Your task to perform on an android device: Add beats solo 3 to the cart on amazon Image 0: 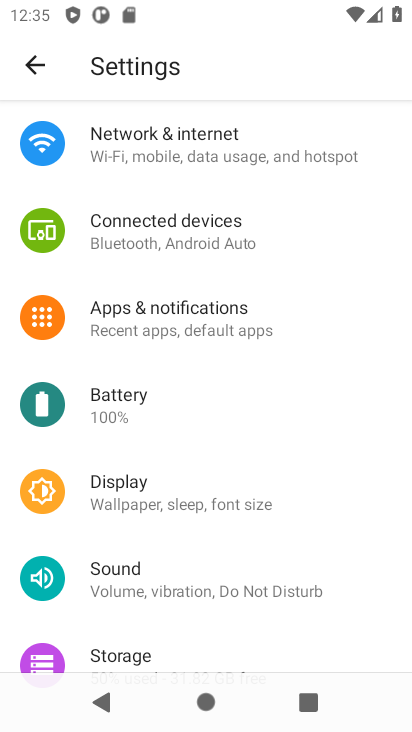
Step 0: press home button
Your task to perform on an android device: Add beats solo 3 to the cart on amazon Image 1: 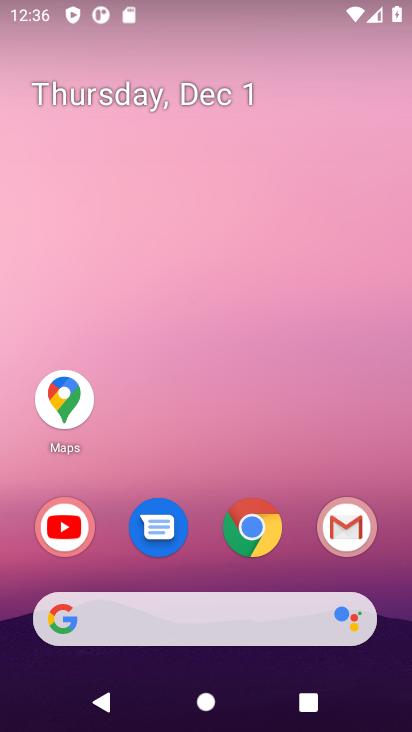
Step 1: click (247, 548)
Your task to perform on an android device: Add beats solo 3 to the cart on amazon Image 2: 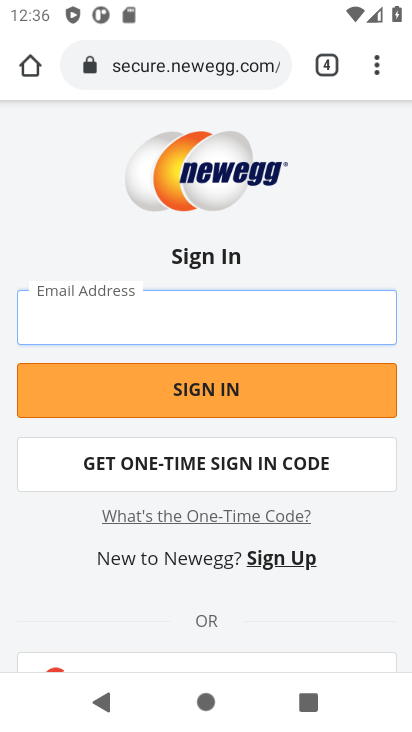
Step 2: click (216, 65)
Your task to perform on an android device: Add beats solo 3 to the cart on amazon Image 3: 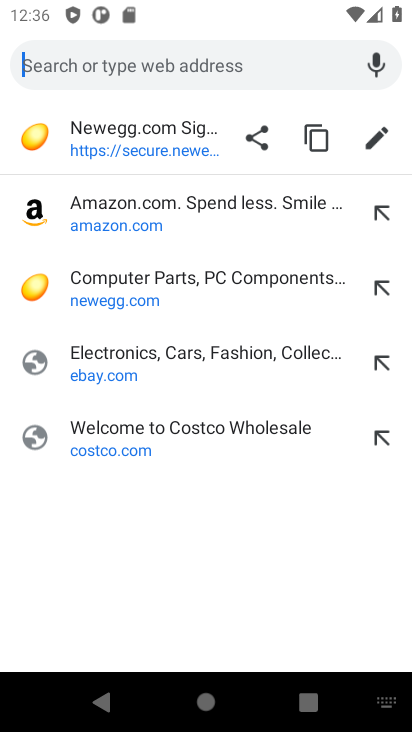
Step 3: click (91, 214)
Your task to perform on an android device: Add beats solo 3 to the cart on amazon Image 4: 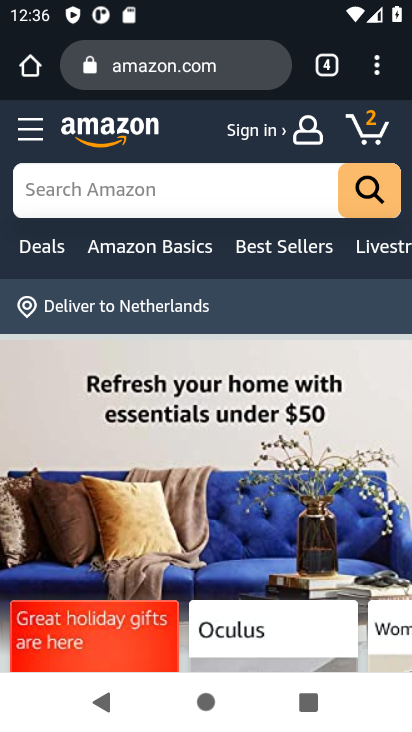
Step 4: click (72, 197)
Your task to perform on an android device: Add beats solo 3 to the cart on amazon Image 5: 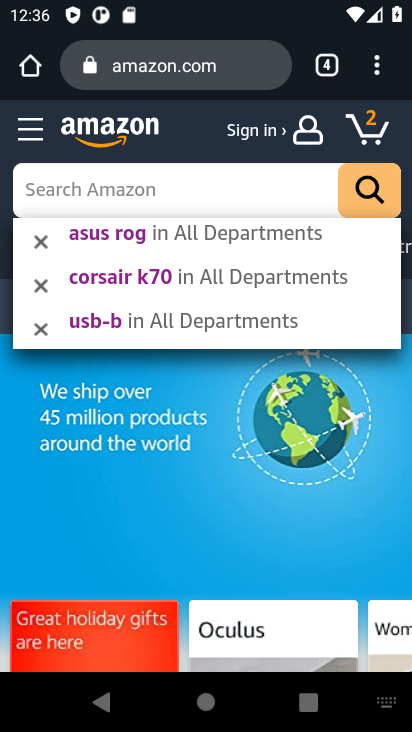
Step 5: type "beats solo 3 "
Your task to perform on an android device: Add beats solo 3 to the cart on amazon Image 6: 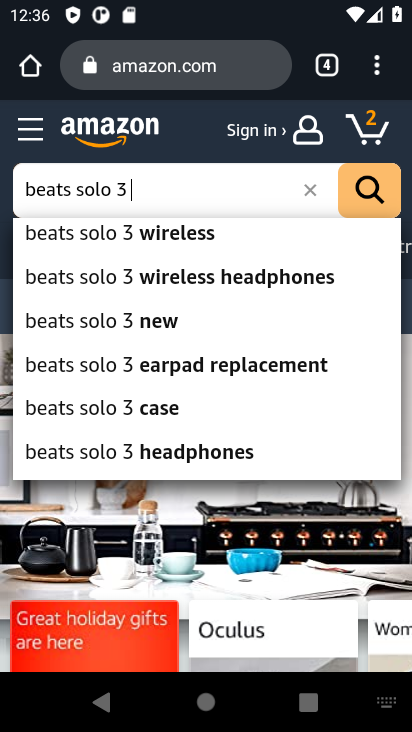
Step 6: click (371, 192)
Your task to perform on an android device: Add beats solo 3 to the cart on amazon Image 7: 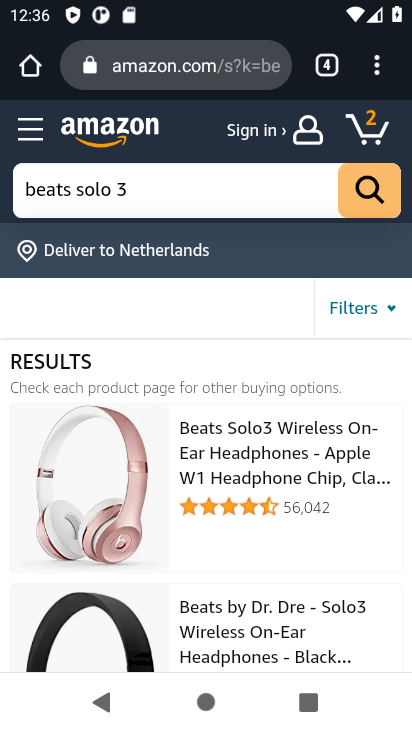
Step 7: drag from (252, 484) to (240, 248)
Your task to perform on an android device: Add beats solo 3 to the cart on amazon Image 8: 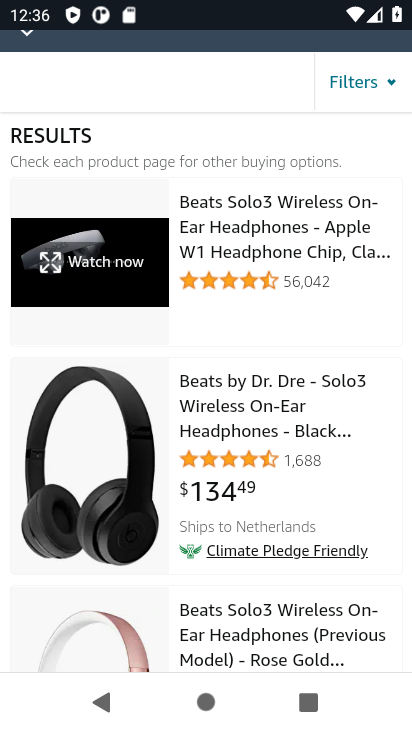
Step 8: drag from (199, 425) to (197, 200)
Your task to perform on an android device: Add beats solo 3 to the cart on amazon Image 9: 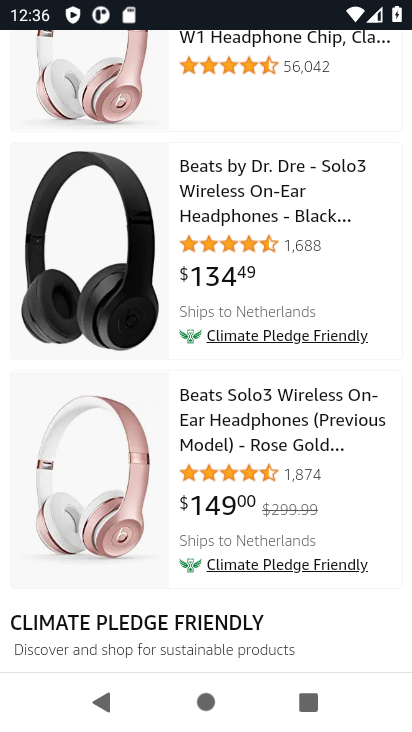
Step 9: drag from (188, 437) to (192, 290)
Your task to perform on an android device: Add beats solo 3 to the cart on amazon Image 10: 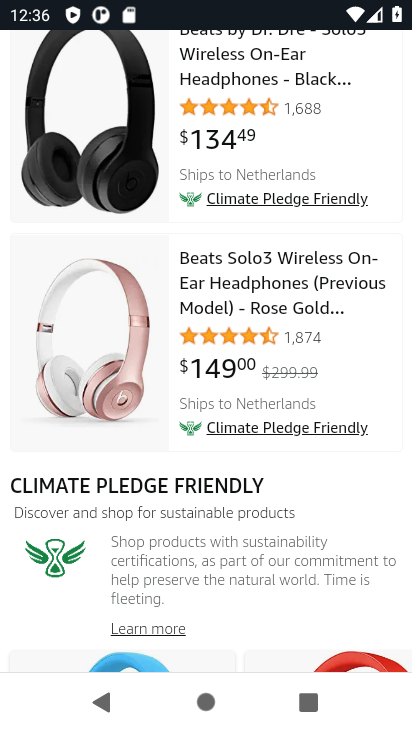
Step 10: click (221, 285)
Your task to perform on an android device: Add beats solo 3 to the cart on amazon Image 11: 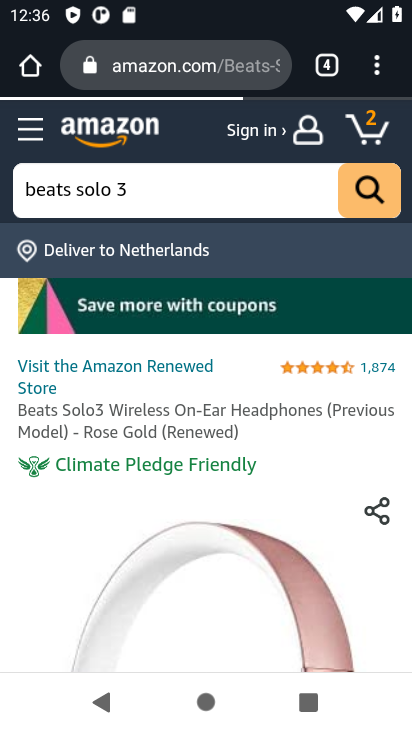
Step 11: drag from (181, 517) to (155, 106)
Your task to perform on an android device: Add beats solo 3 to the cart on amazon Image 12: 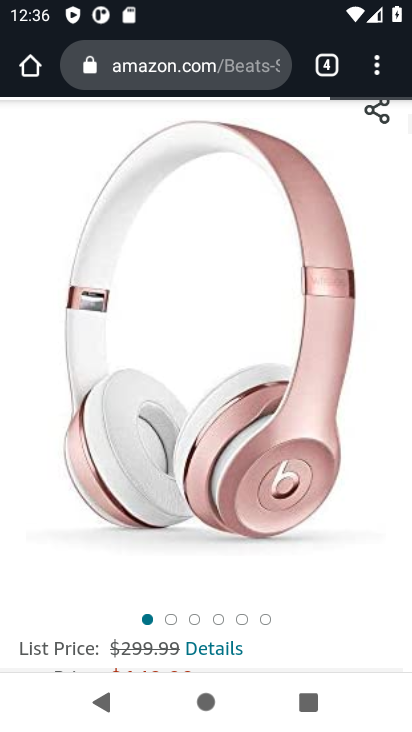
Step 12: drag from (148, 451) to (143, 172)
Your task to perform on an android device: Add beats solo 3 to the cart on amazon Image 13: 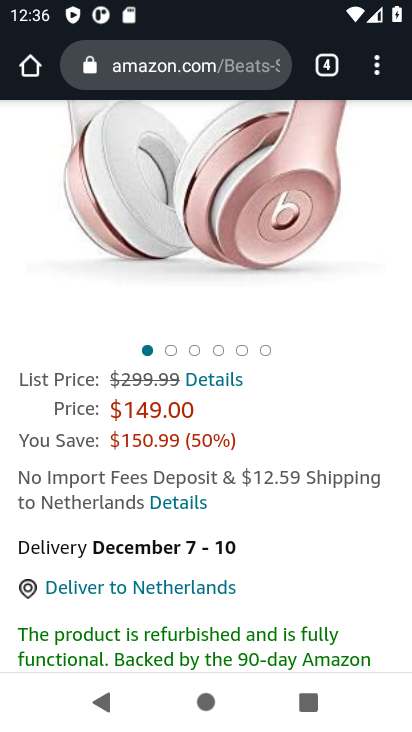
Step 13: drag from (138, 471) to (105, 175)
Your task to perform on an android device: Add beats solo 3 to the cart on amazon Image 14: 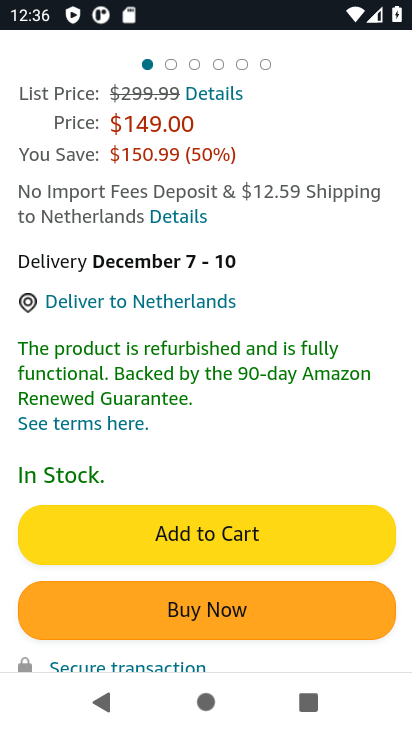
Step 14: drag from (141, 446) to (136, 261)
Your task to perform on an android device: Add beats solo 3 to the cart on amazon Image 15: 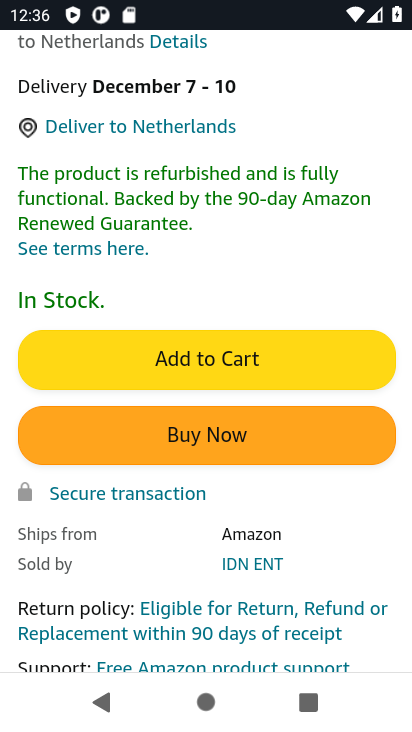
Step 15: click (169, 362)
Your task to perform on an android device: Add beats solo 3 to the cart on amazon Image 16: 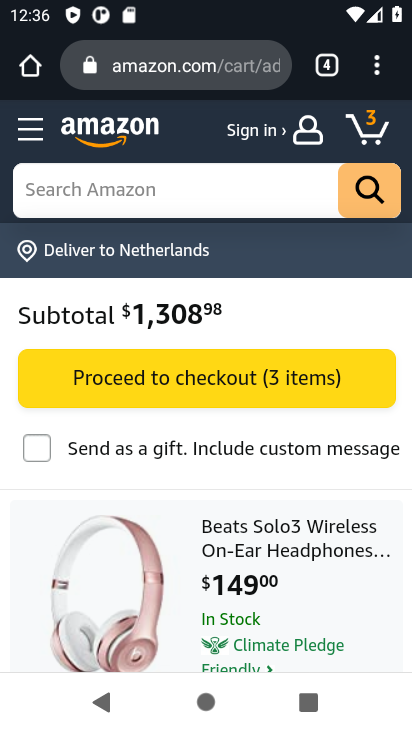
Step 16: task complete